Your task to perform on an android device: set the stopwatch Image 0: 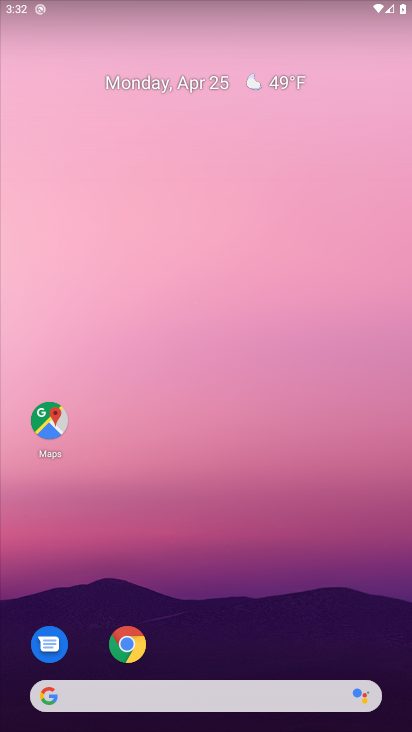
Step 0: drag from (219, 600) to (266, 27)
Your task to perform on an android device: set the stopwatch Image 1: 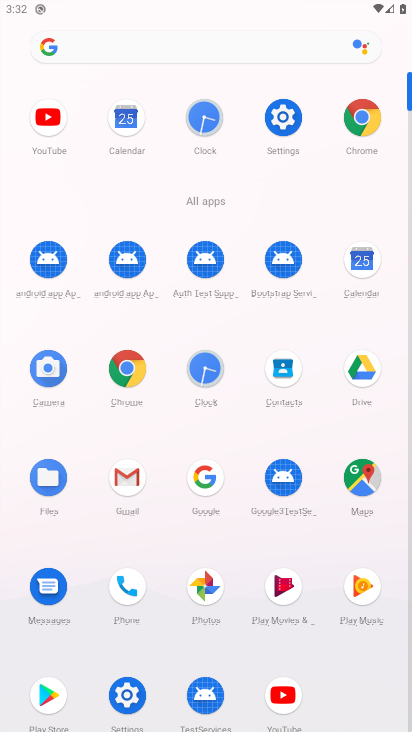
Step 1: click (280, 115)
Your task to perform on an android device: set the stopwatch Image 2: 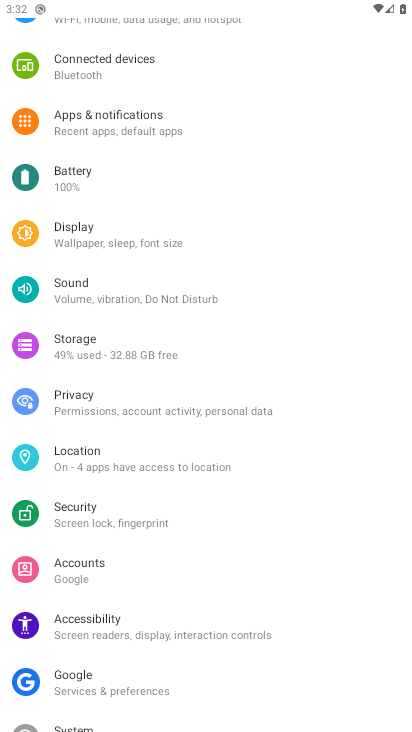
Step 2: press home button
Your task to perform on an android device: set the stopwatch Image 3: 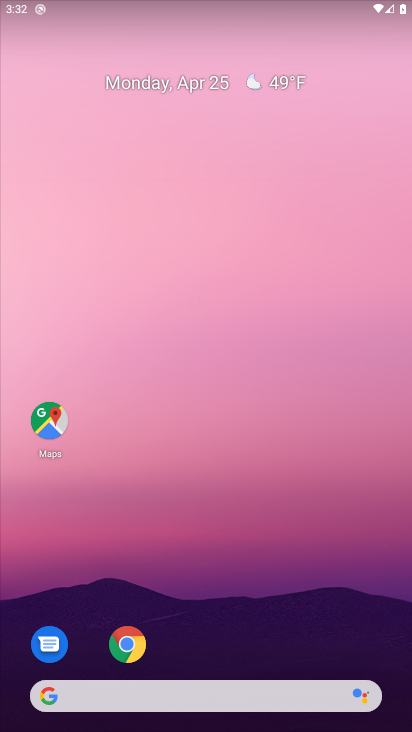
Step 3: drag from (242, 629) to (232, 226)
Your task to perform on an android device: set the stopwatch Image 4: 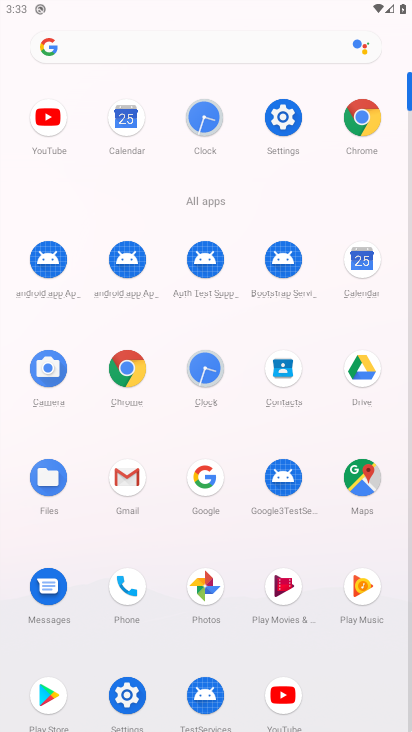
Step 4: click (203, 125)
Your task to perform on an android device: set the stopwatch Image 5: 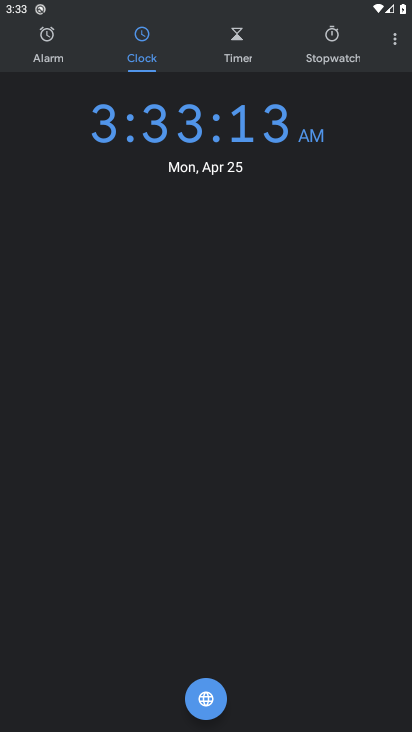
Step 5: click (333, 49)
Your task to perform on an android device: set the stopwatch Image 6: 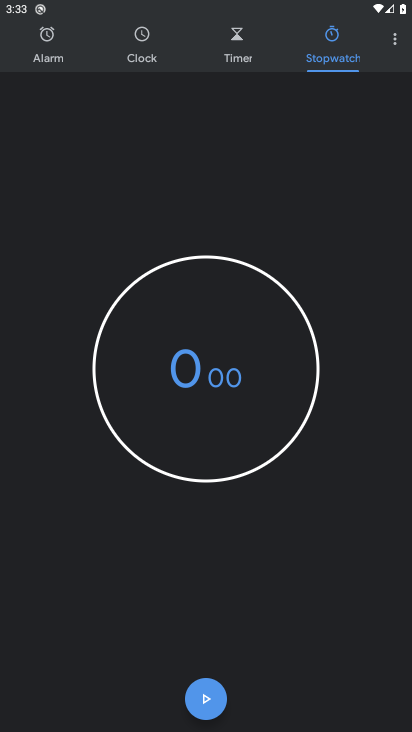
Step 6: task complete